Your task to perform on an android device: Go to Yahoo.com Image 0: 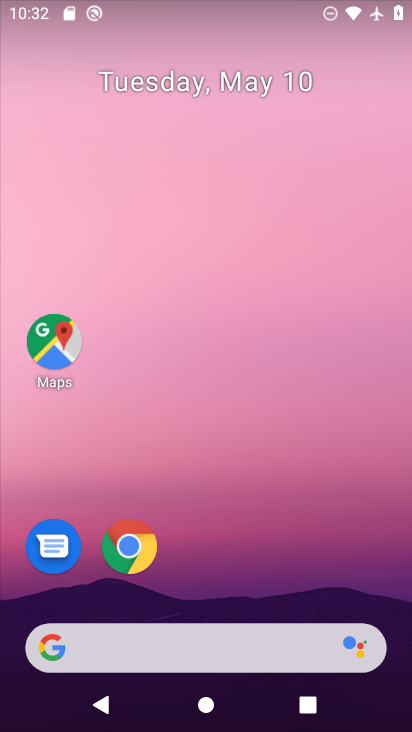
Step 0: drag from (276, 558) to (266, 130)
Your task to perform on an android device: Go to Yahoo.com Image 1: 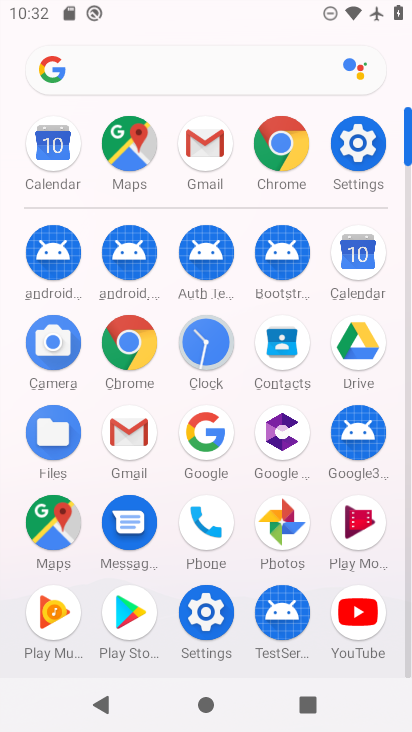
Step 1: click (283, 142)
Your task to perform on an android device: Go to Yahoo.com Image 2: 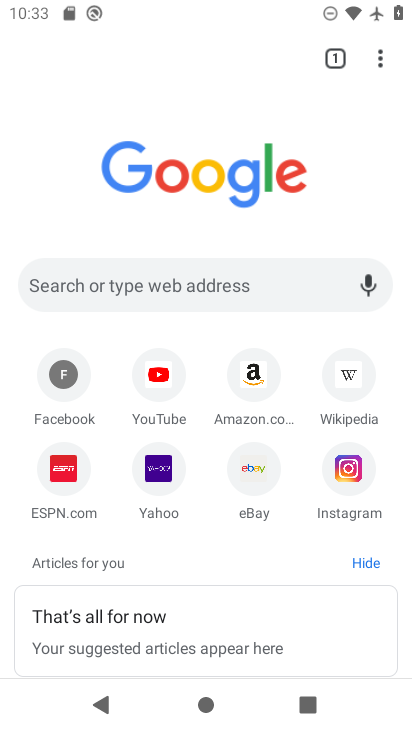
Step 2: click (161, 469)
Your task to perform on an android device: Go to Yahoo.com Image 3: 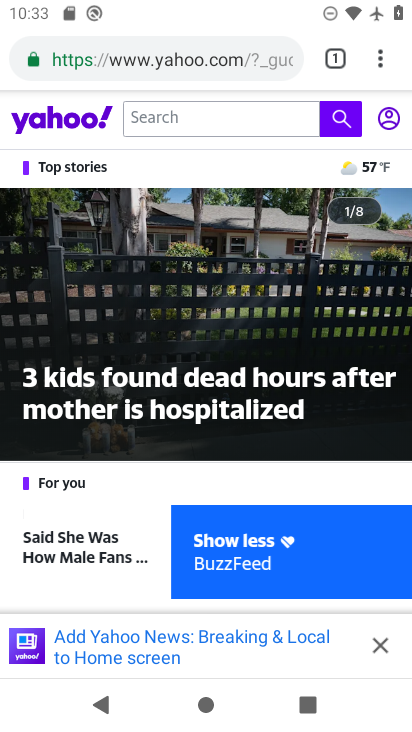
Step 3: task complete